Your task to perform on an android device: Open Google Chrome and open the bookmarks view Image 0: 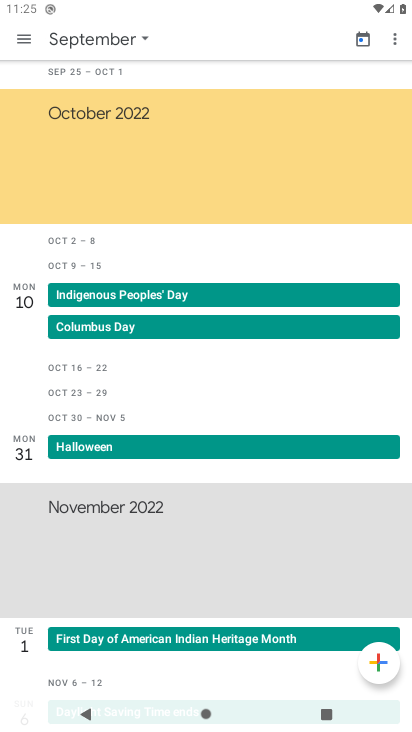
Step 0: press home button
Your task to perform on an android device: Open Google Chrome and open the bookmarks view Image 1: 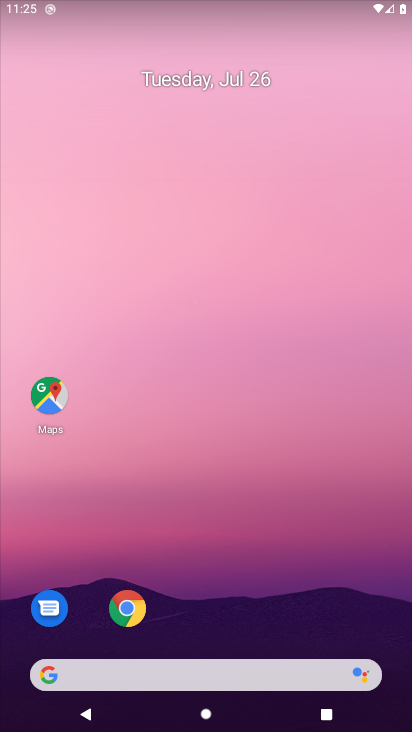
Step 1: click (122, 599)
Your task to perform on an android device: Open Google Chrome and open the bookmarks view Image 2: 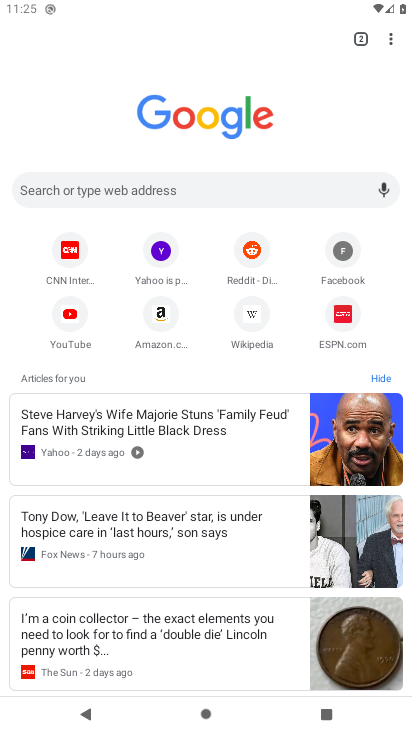
Step 2: task complete